Your task to perform on an android device: Go to settings Image 0: 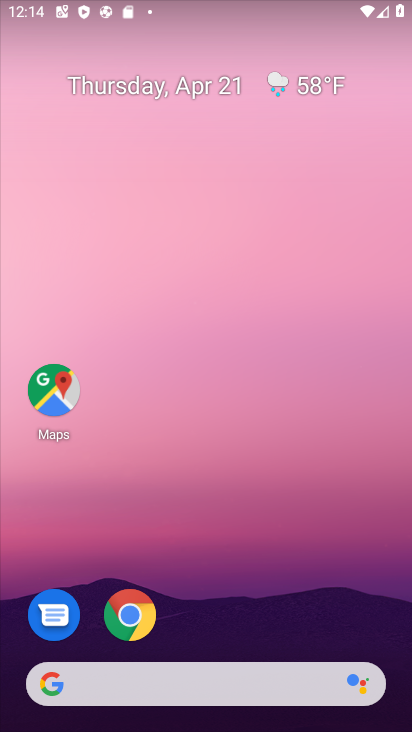
Step 0: drag from (359, 593) to (345, 196)
Your task to perform on an android device: Go to settings Image 1: 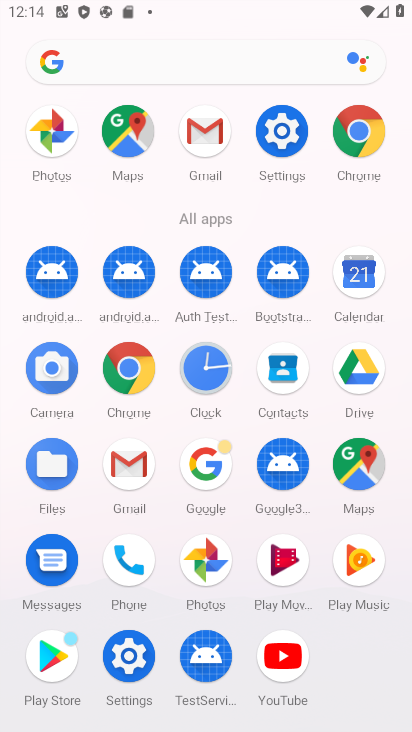
Step 1: click (278, 143)
Your task to perform on an android device: Go to settings Image 2: 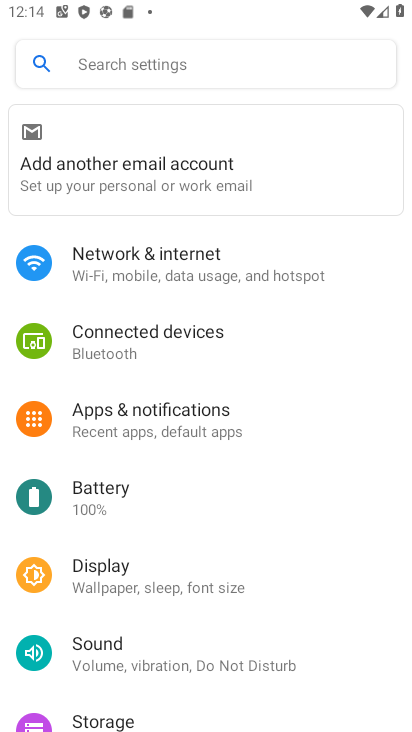
Step 2: task complete